Your task to perform on an android device: Clear the cart on bestbuy. Search for "asus zenbook" on bestbuy, select the first entry, add it to the cart, then select checkout. Image 0: 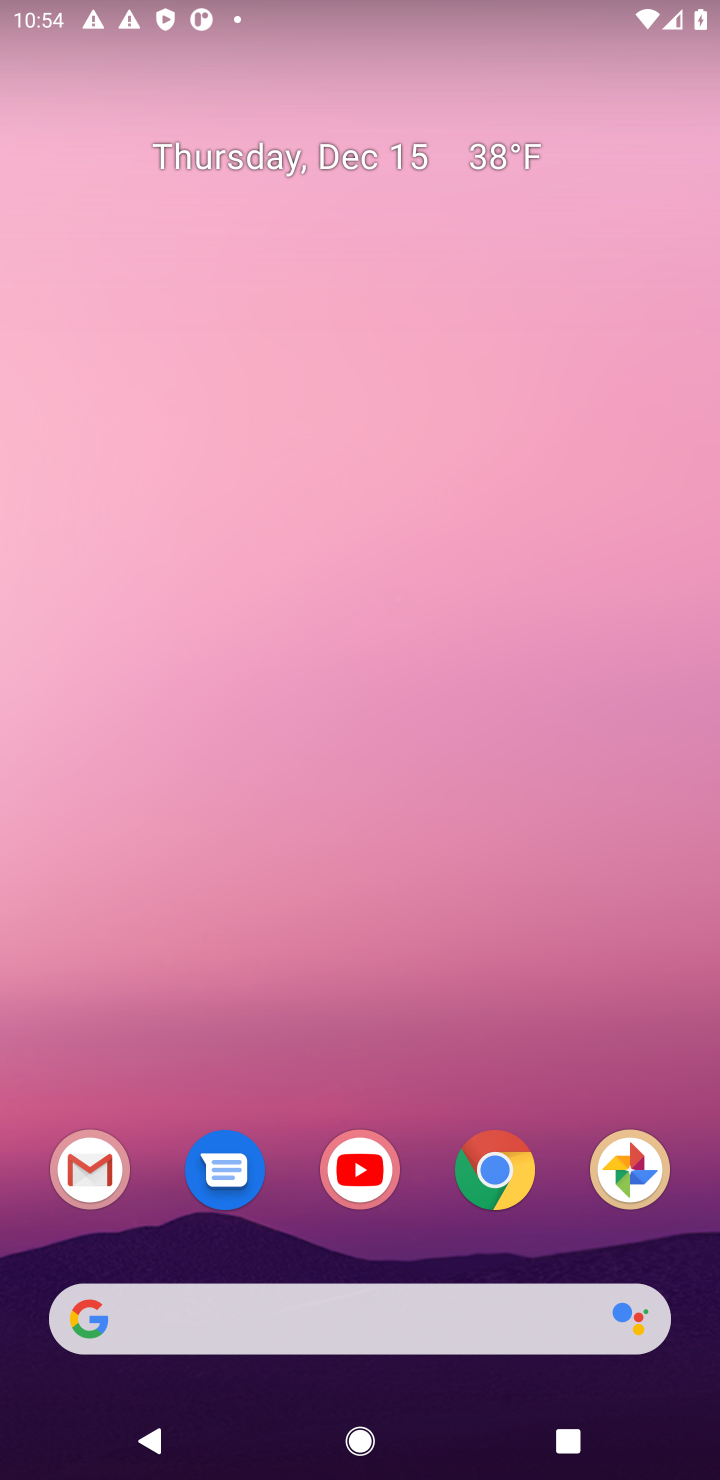
Step 0: click (497, 1167)
Your task to perform on an android device: Clear the cart on bestbuy. Search for "asus zenbook" on bestbuy, select the first entry, add it to the cart, then select checkout. Image 1: 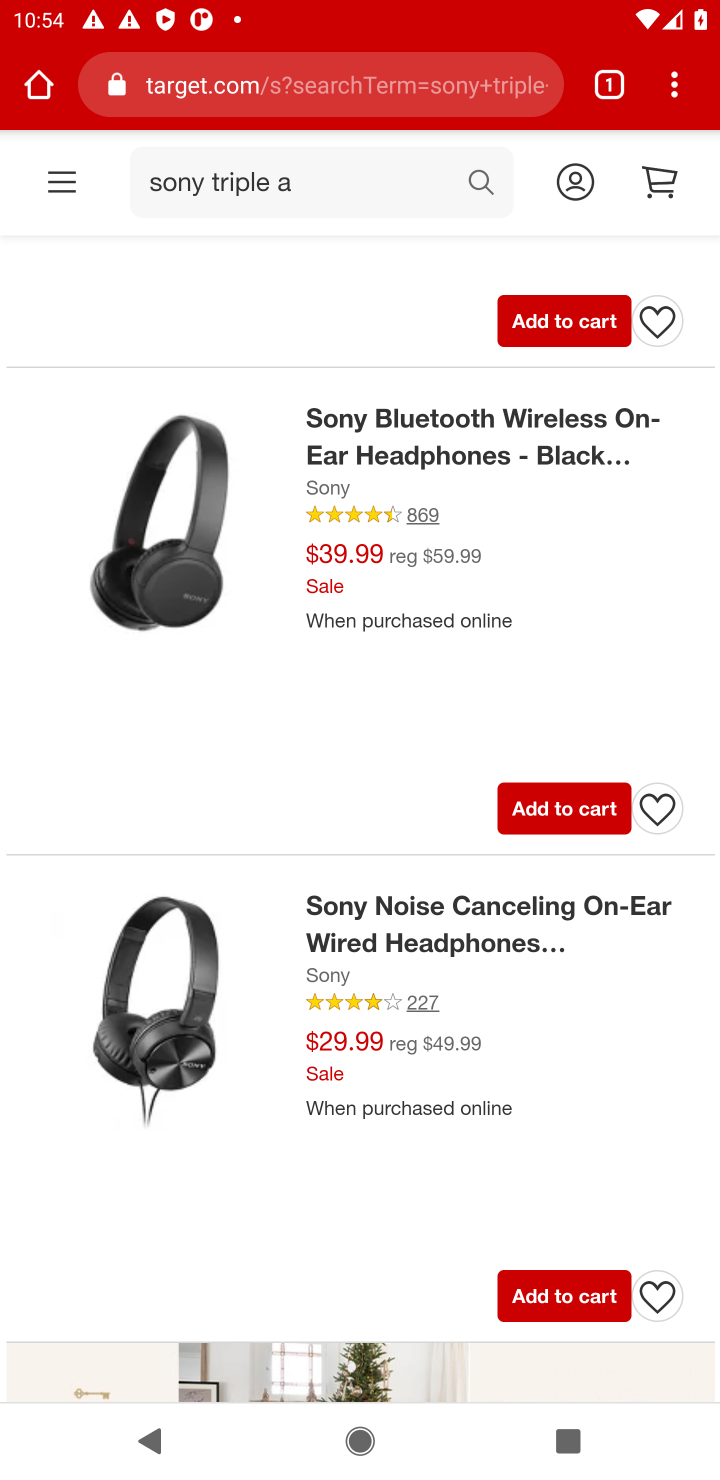
Step 1: click (280, 96)
Your task to perform on an android device: Clear the cart on bestbuy. Search for "asus zenbook" on bestbuy, select the first entry, add it to the cart, then select checkout. Image 2: 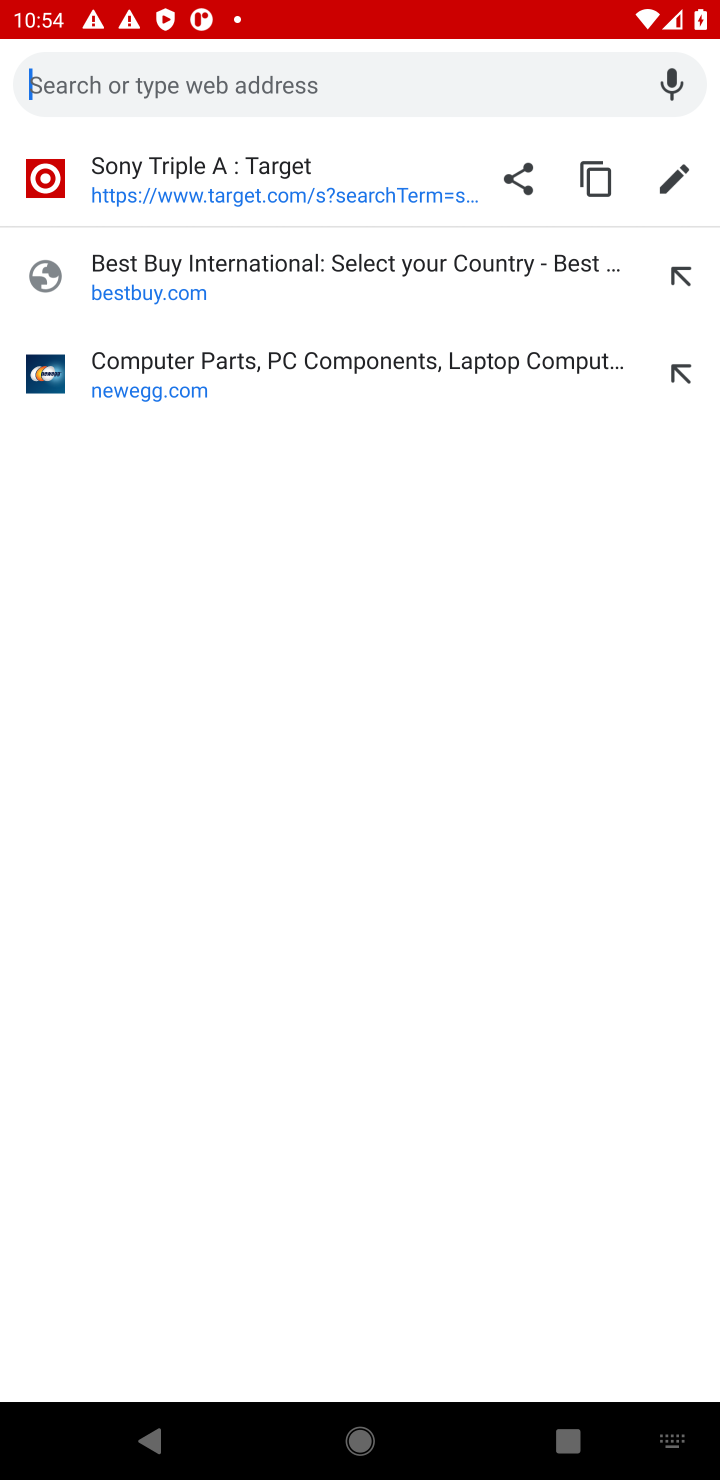
Step 2: click (129, 286)
Your task to perform on an android device: Clear the cart on bestbuy. Search for "asus zenbook" on bestbuy, select the first entry, add it to the cart, then select checkout. Image 3: 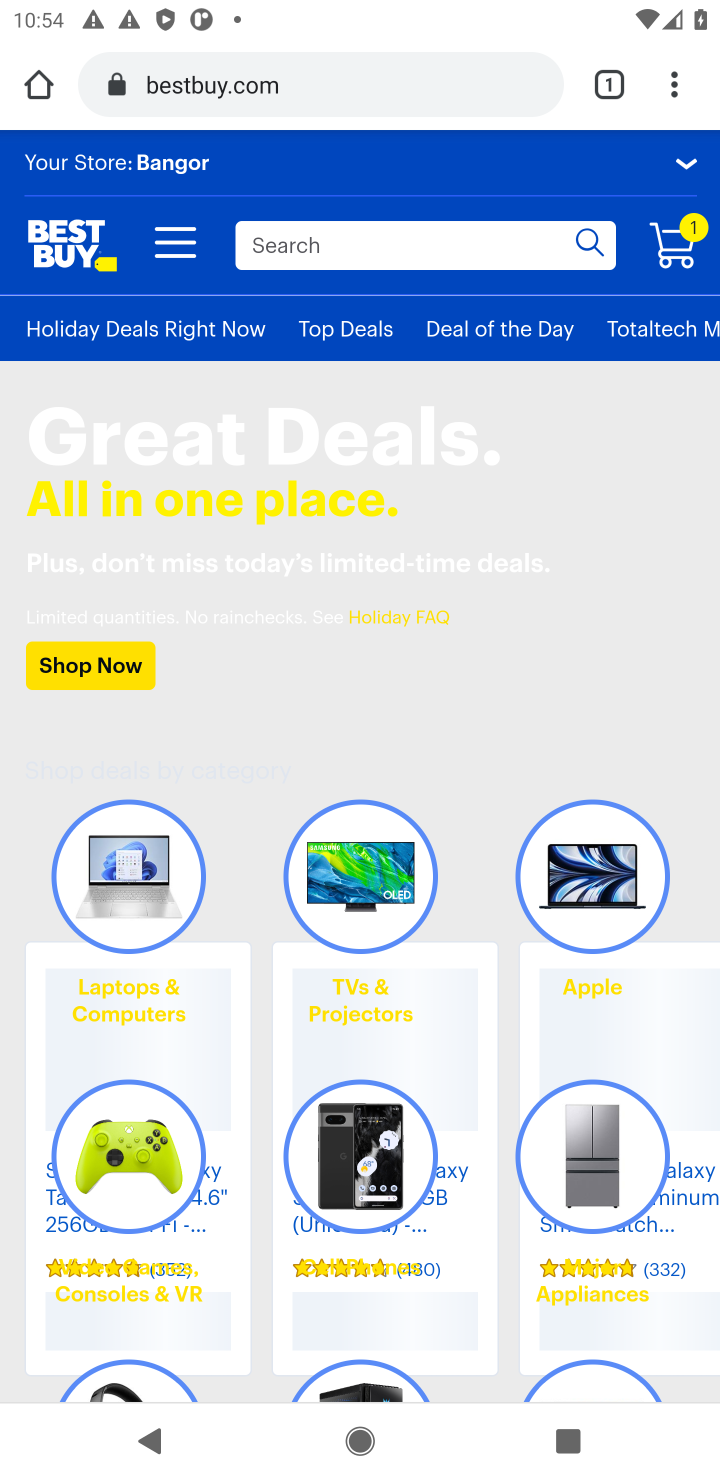
Step 3: click (664, 253)
Your task to perform on an android device: Clear the cart on bestbuy. Search for "asus zenbook" on bestbuy, select the first entry, add it to the cart, then select checkout. Image 4: 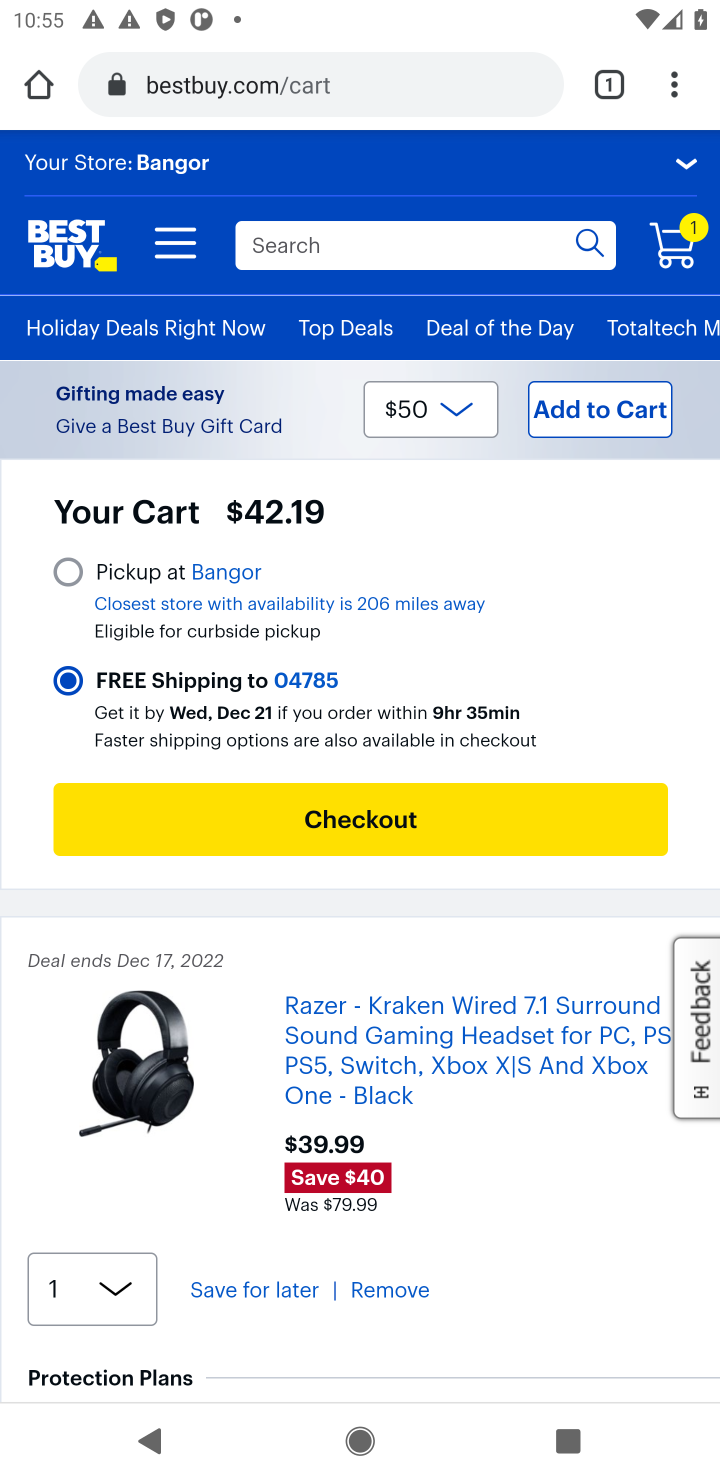
Step 4: drag from (372, 829) to (432, 522)
Your task to perform on an android device: Clear the cart on bestbuy. Search for "asus zenbook" on bestbuy, select the first entry, add it to the cart, then select checkout. Image 5: 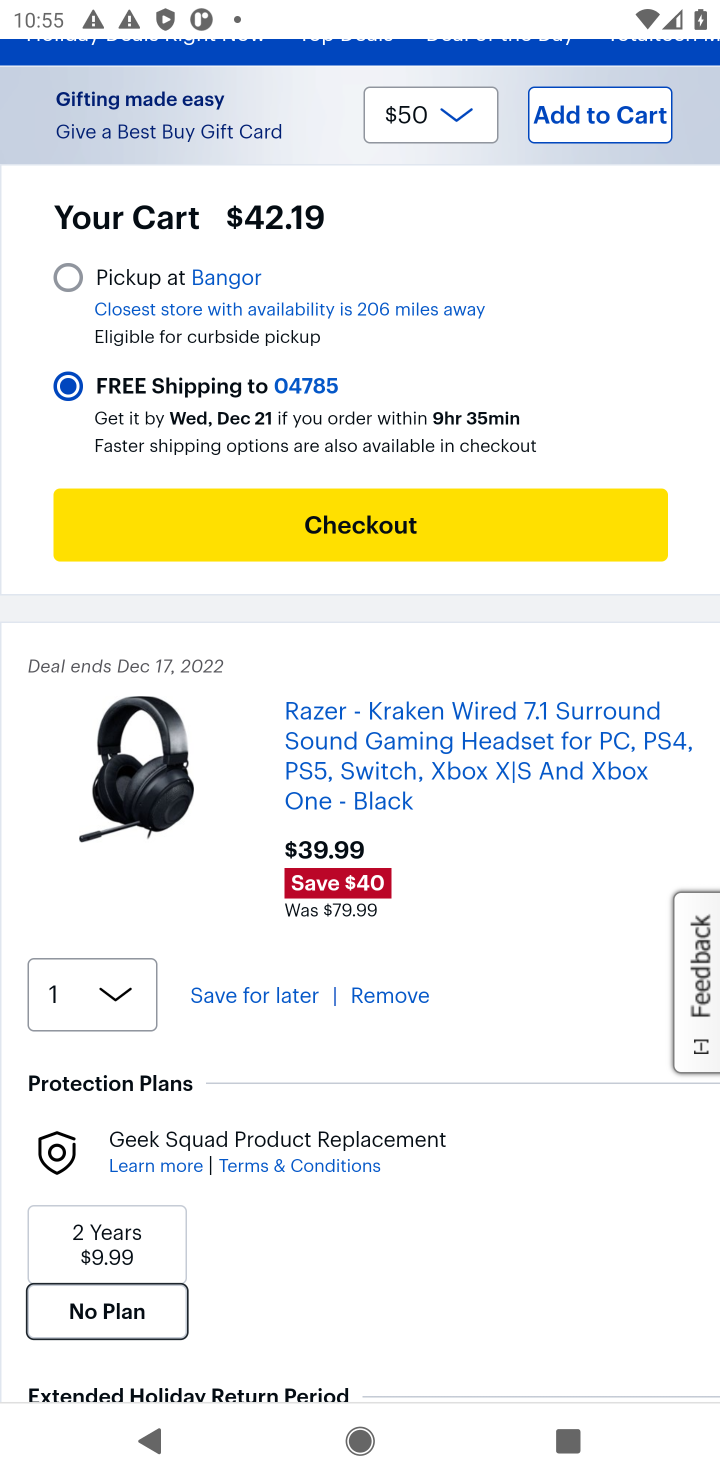
Step 5: click (364, 1001)
Your task to perform on an android device: Clear the cart on bestbuy. Search for "asus zenbook" on bestbuy, select the first entry, add it to the cart, then select checkout. Image 6: 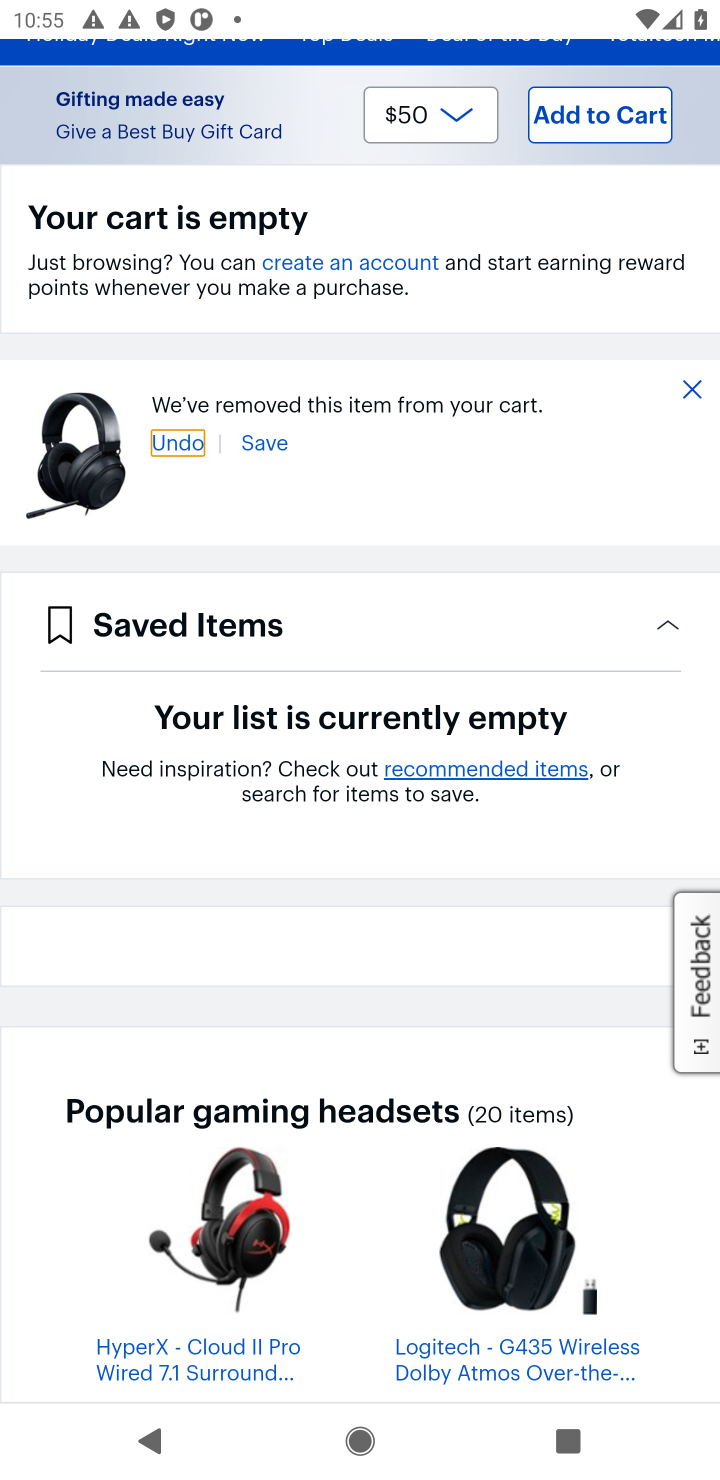
Step 6: drag from (401, 605) to (396, 1076)
Your task to perform on an android device: Clear the cart on bestbuy. Search for "asus zenbook" on bestbuy, select the first entry, add it to the cart, then select checkout. Image 7: 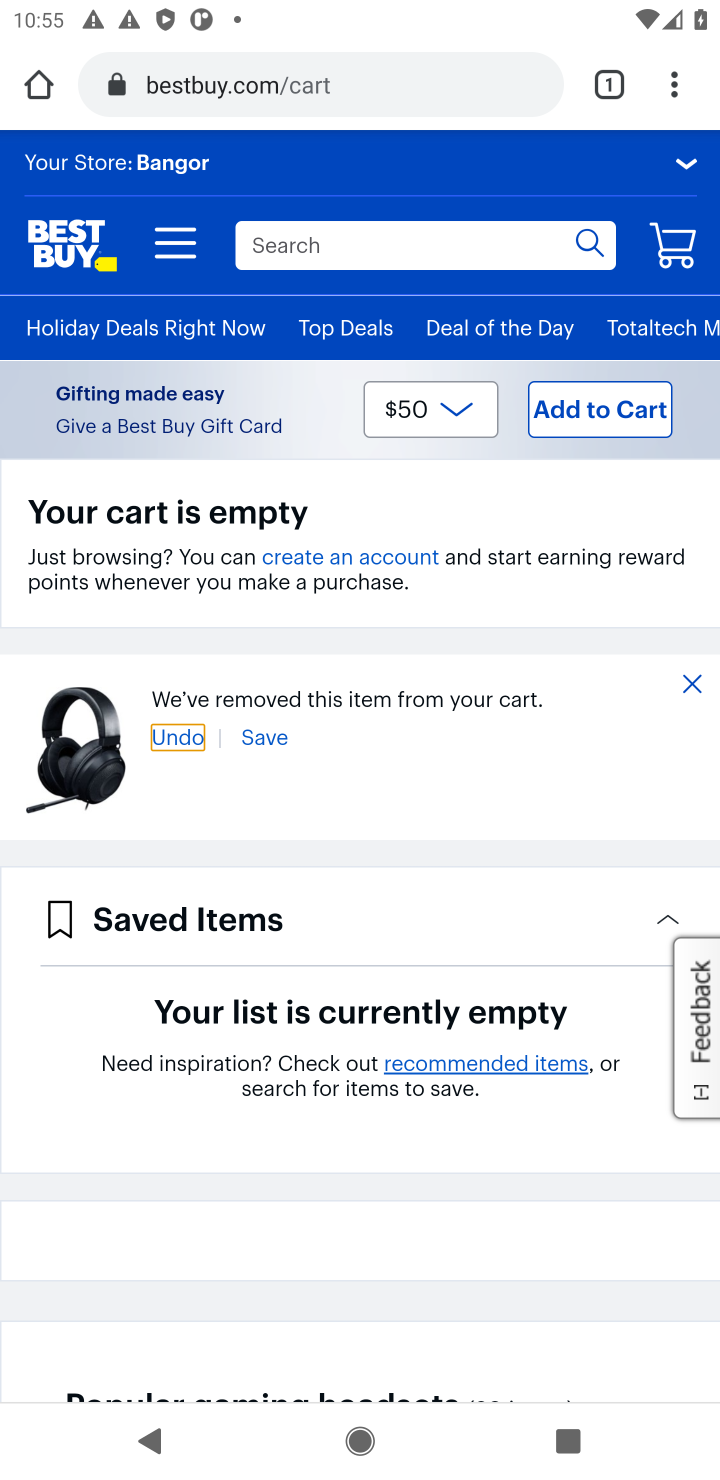
Step 7: click (306, 254)
Your task to perform on an android device: Clear the cart on bestbuy. Search for "asus zenbook" on bestbuy, select the first entry, add it to the cart, then select checkout. Image 8: 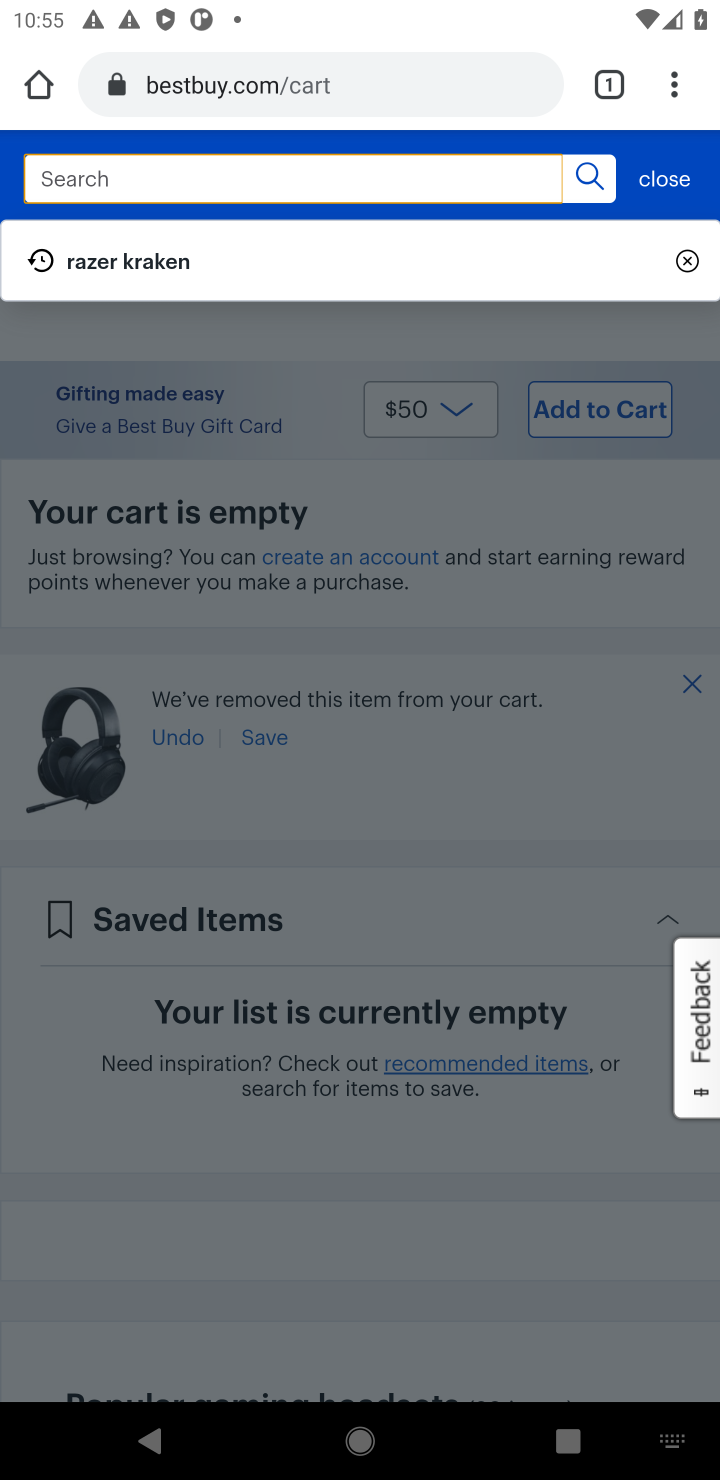
Step 8: type "asus zenbook"
Your task to perform on an android device: Clear the cart on bestbuy. Search for "asus zenbook" on bestbuy, select the first entry, add it to the cart, then select checkout. Image 9: 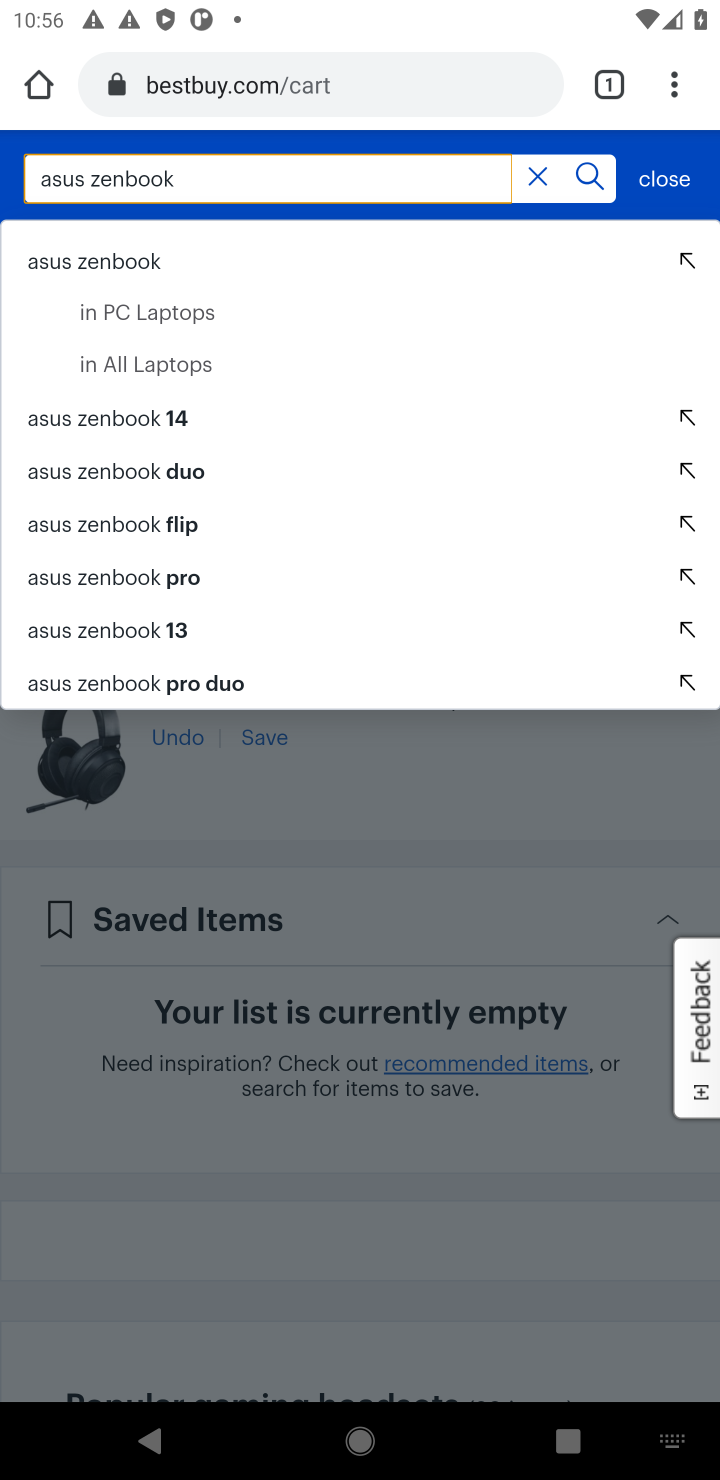
Step 9: click (91, 270)
Your task to perform on an android device: Clear the cart on bestbuy. Search for "asus zenbook" on bestbuy, select the first entry, add it to the cart, then select checkout. Image 10: 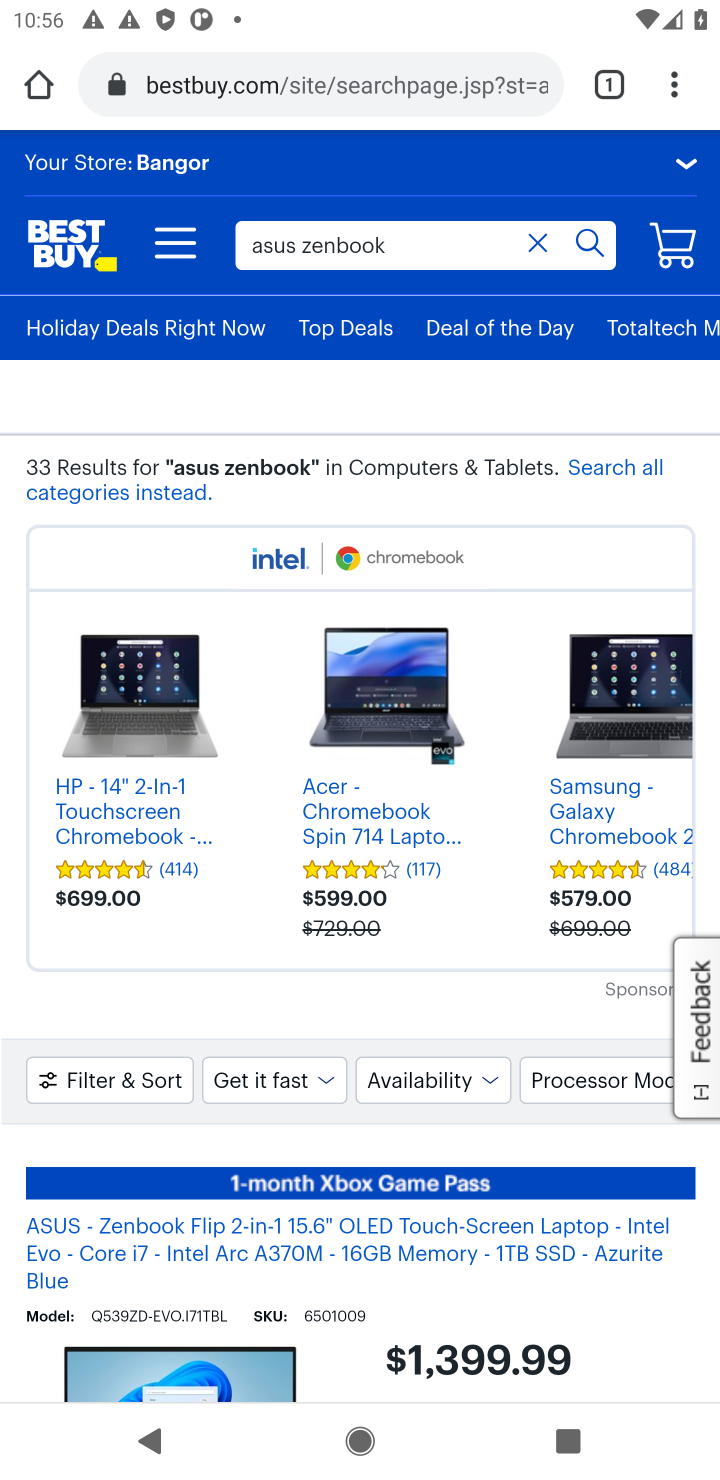
Step 10: drag from (293, 1201) to (301, 595)
Your task to perform on an android device: Clear the cart on bestbuy. Search for "asus zenbook" on bestbuy, select the first entry, add it to the cart, then select checkout. Image 11: 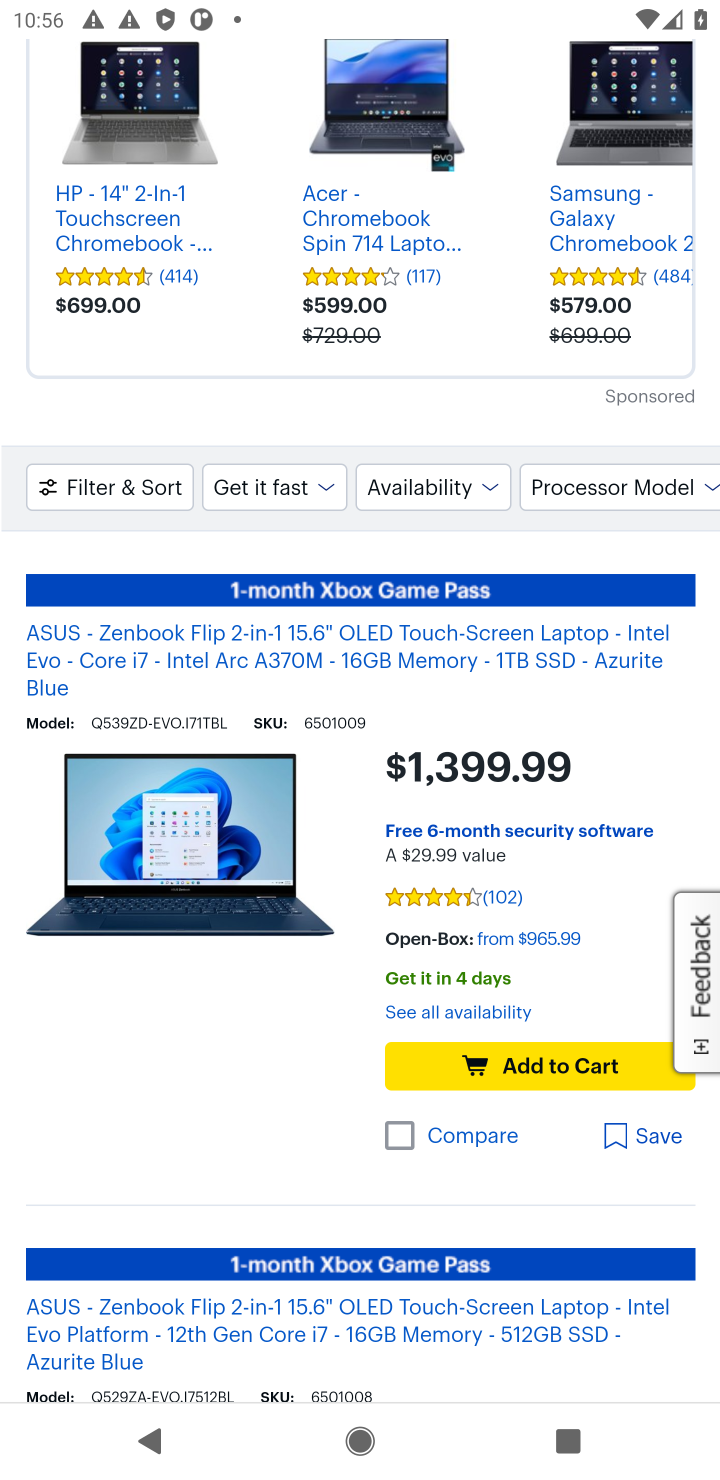
Step 11: click (448, 1054)
Your task to perform on an android device: Clear the cart on bestbuy. Search for "asus zenbook" on bestbuy, select the first entry, add it to the cart, then select checkout. Image 12: 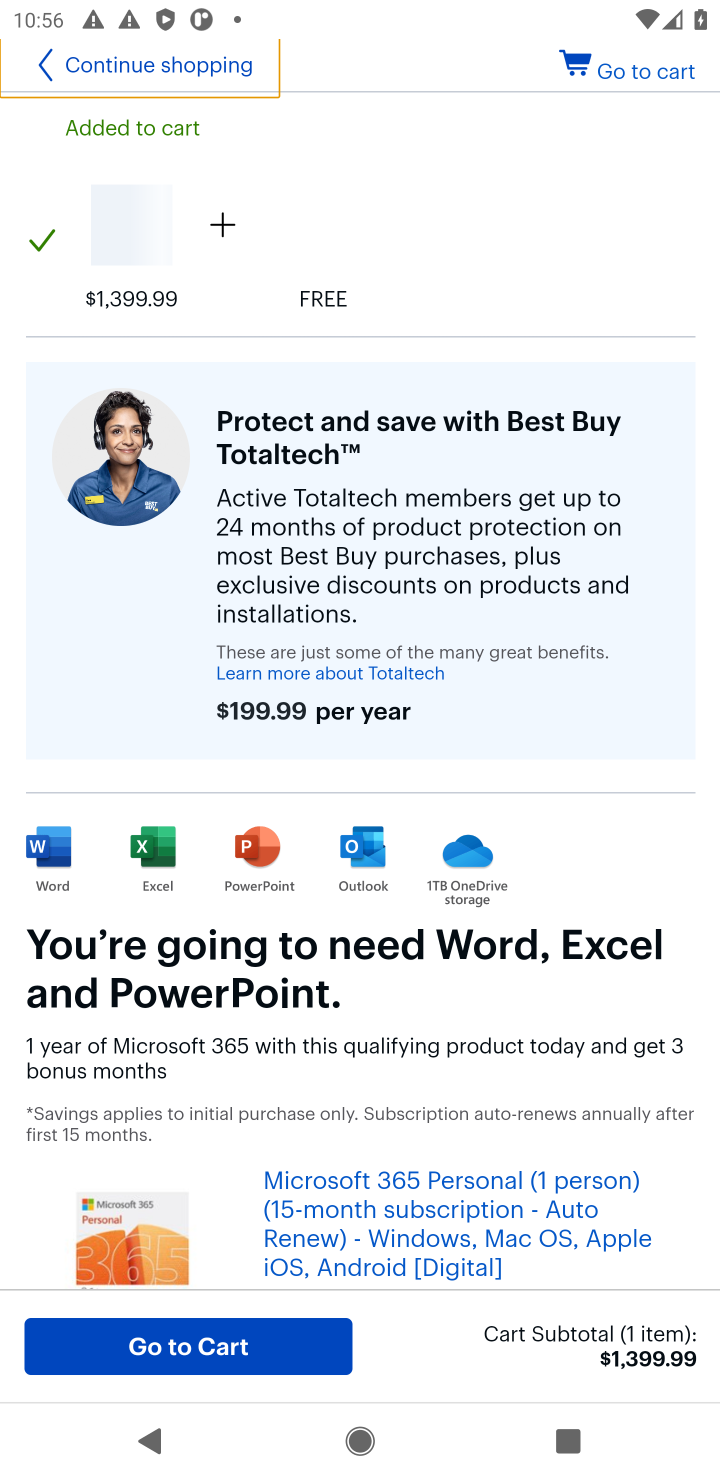
Step 12: click (645, 73)
Your task to perform on an android device: Clear the cart on bestbuy. Search for "asus zenbook" on bestbuy, select the first entry, add it to the cart, then select checkout. Image 13: 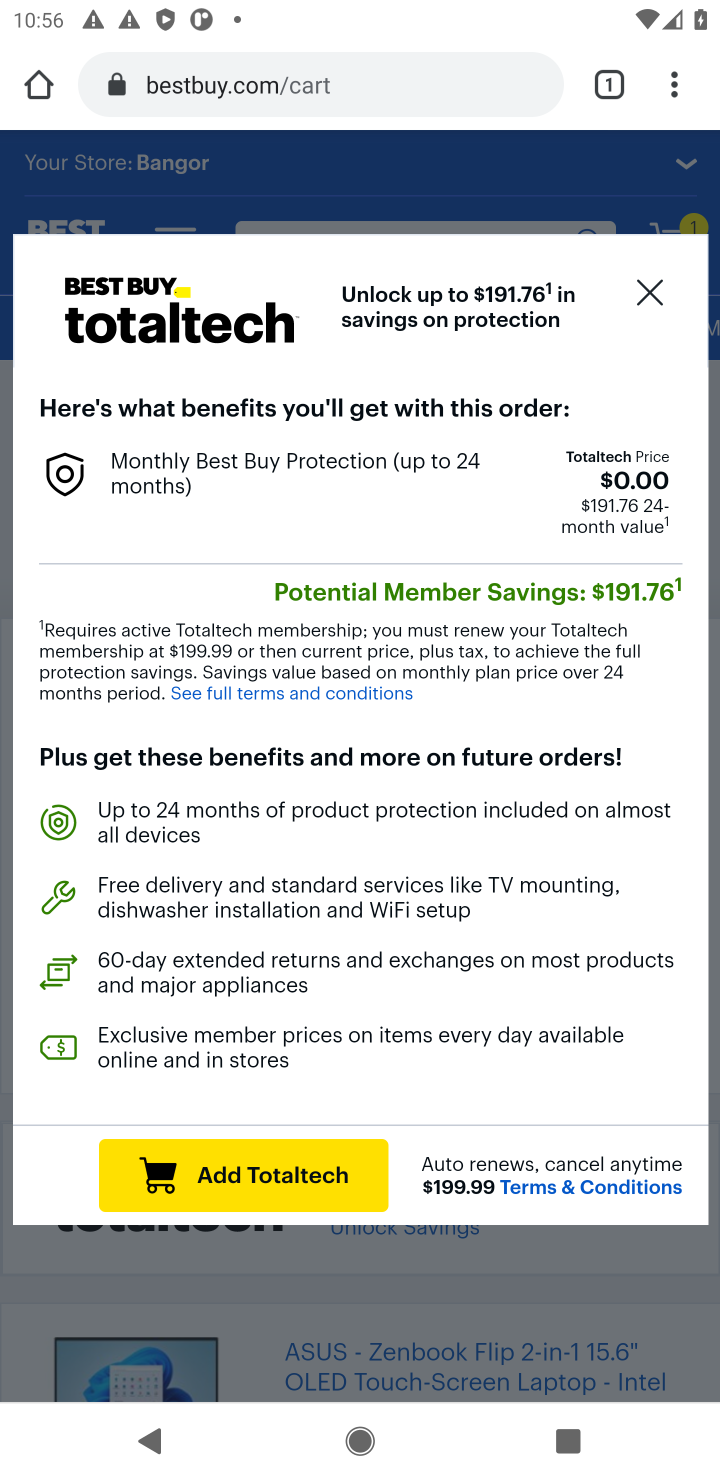
Step 13: click (660, 298)
Your task to perform on an android device: Clear the cart on bestbuy. Search for "asus zenbook" on bestbuy, select the first entry, add it to the cart, then select checkout. Image 14: 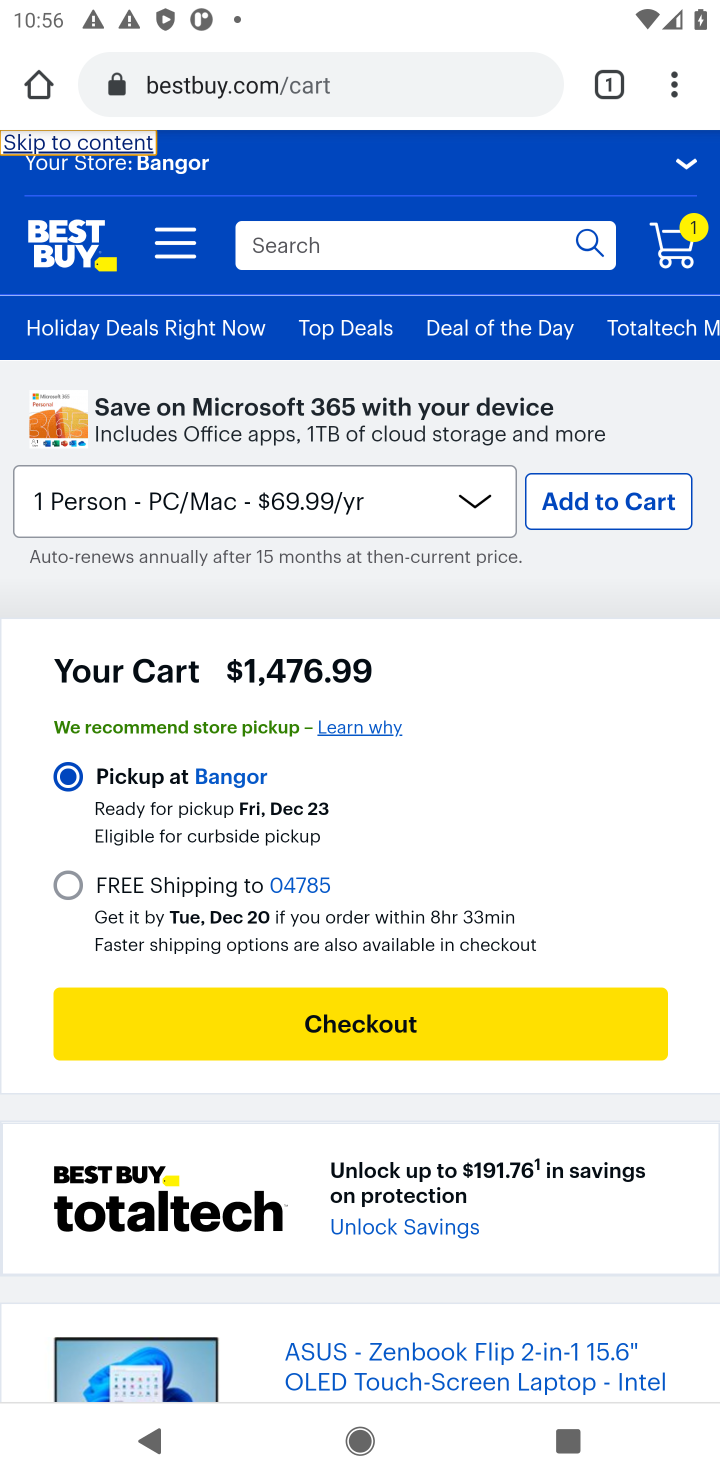
Step 14: click (390, 1020)
Your task to perform on an android device: Clear the cart on bestbuy. Search for "asus zenbook" on bestbuy, select the first entry, add it to the cart, then select checkout. Image 15: 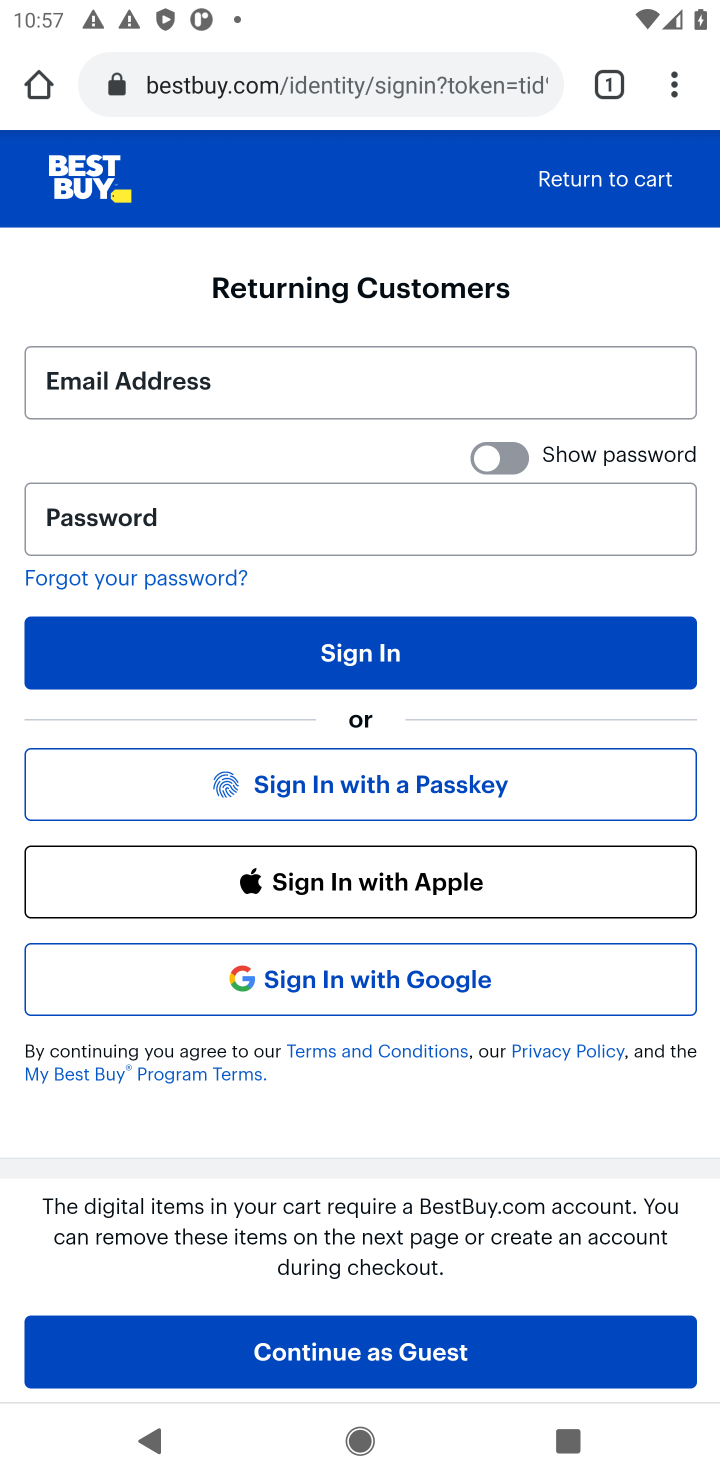
Step 15: task complete